Your task to perform on an android device: Open Chrome and go to settings Image 0: 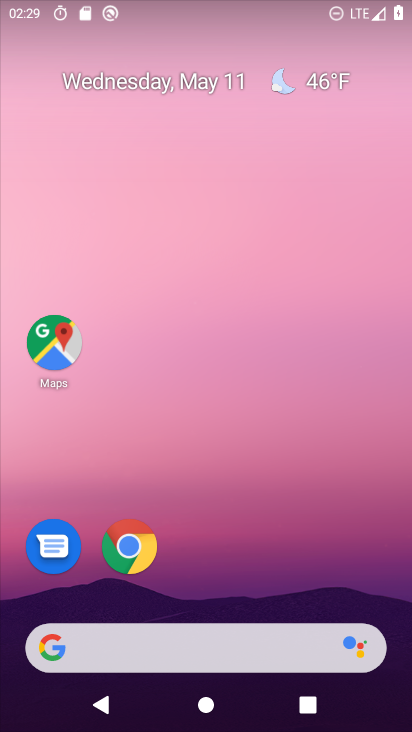
Step 0: drag from (268, 670) to (234, 105)
Your task to perform on an android device: Open Chrome and go to settings Image 1: 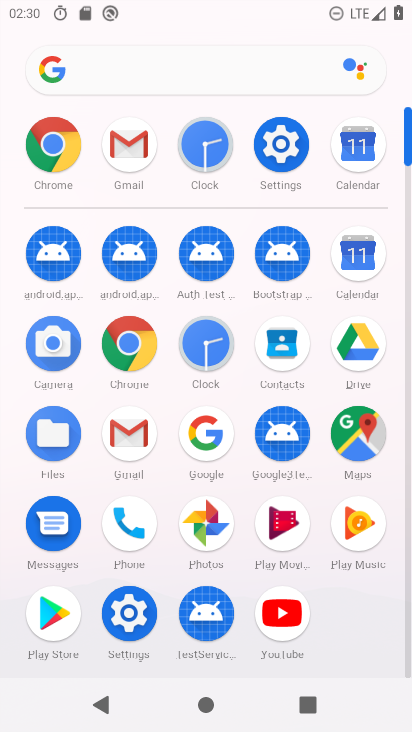
Step 1: click (135, 342)
Your task to perform on an android device: Open Chrome and go to settings Image 2: 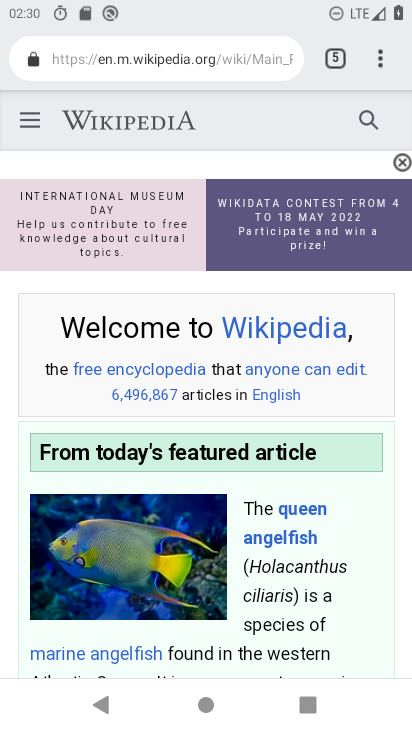
Step 2: click (376, 54)
Your task to perform on an android device: Open Chrome and go to settings Image 3: 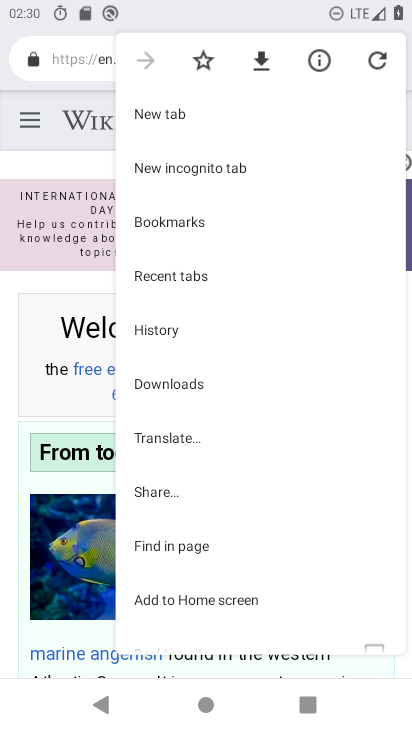
Step 3: drag from (229, 543) to (237, 319)
Your task to perform on an android device: Open Chrome and go to settings Image 4: 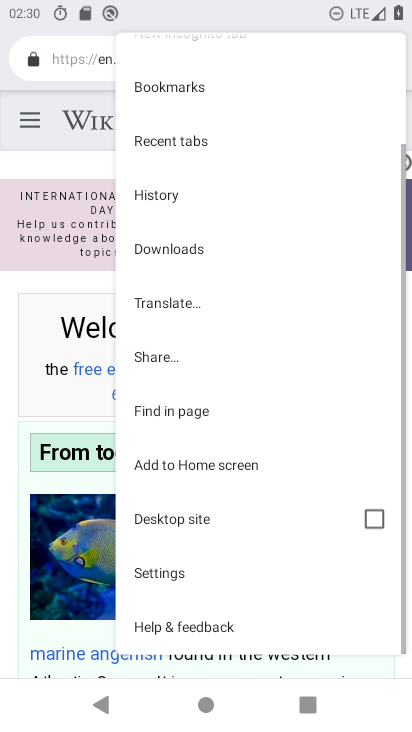
Step 4: click (186, 575)
Your task to perform on an android device: Open Chrome and go to settings Image 5: 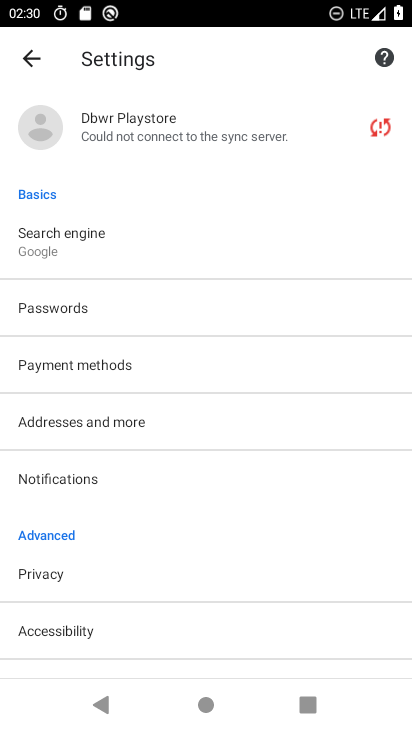
Step 5: task complete